Your task to perform on an android device: turn off javascript in the chrome app Image 0: 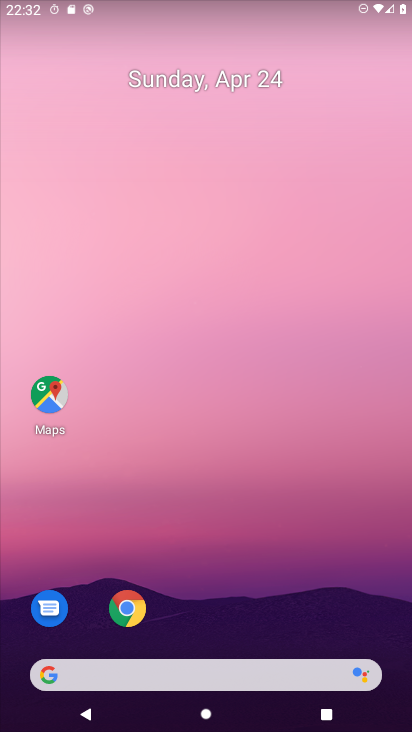
Step 0: click (130, 608)
Your task to perform on an android device: turn off javascript in the chrome app Image 1: 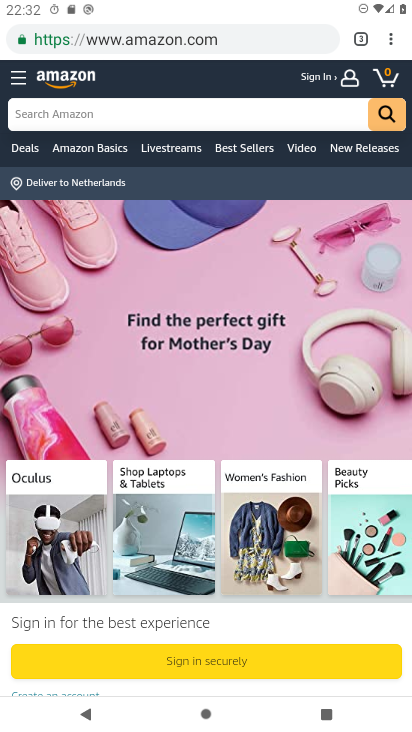
Step 1: click (387, 34)
Your task to perform on an android device: turn off javascript in the chrome app Image 2: 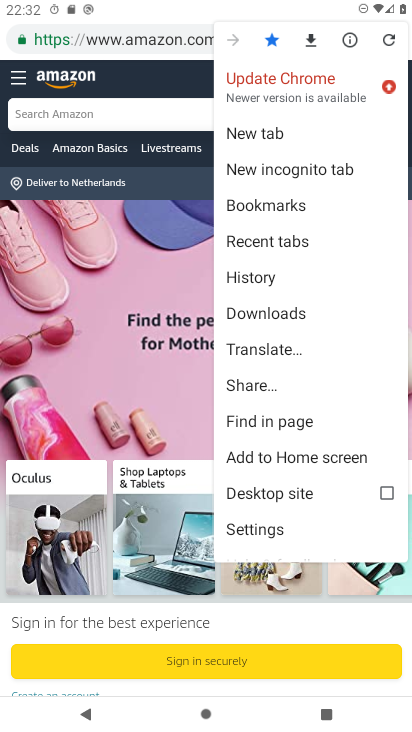
Step 2: click (275, 523)
Your task to perform on an android device: turn off javascript in the chrome app Image 3: 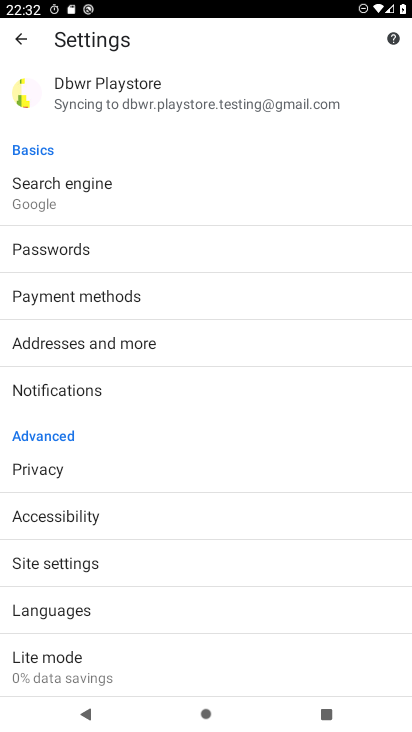
Step 3: click (213, 563)
Your task to perform on an android device: turn off javascript in the chrome app Image 4: 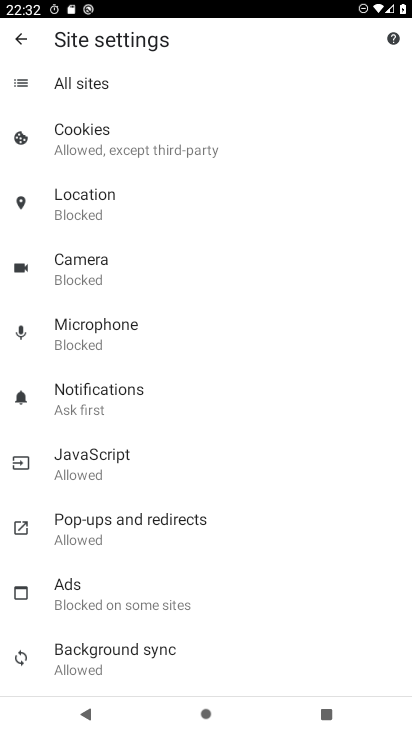
Step 4: click (167, 455)
Your task to perform on an android device: turn off javascript in the chrome app Image 5: 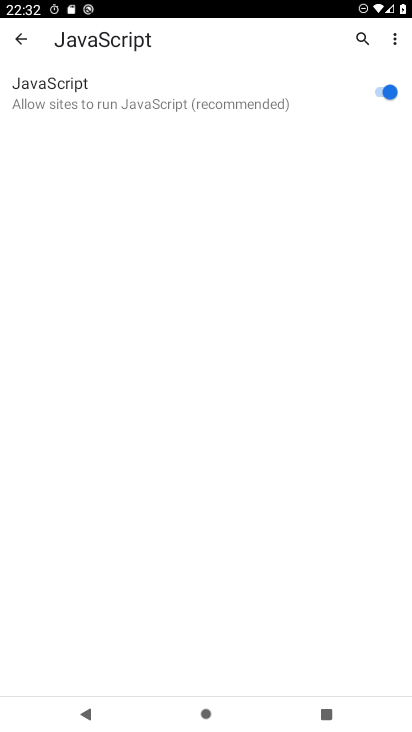
Step 5: click (380, 88)
Your task to perform on an android device: turn off javascript in the chrome app Image 6: 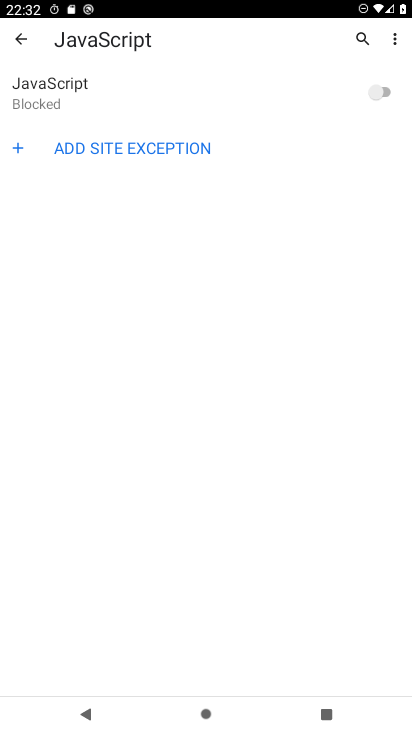
Step 6: task complete